Your task to perform on an android device: see creations saved in the google photos Image 0: 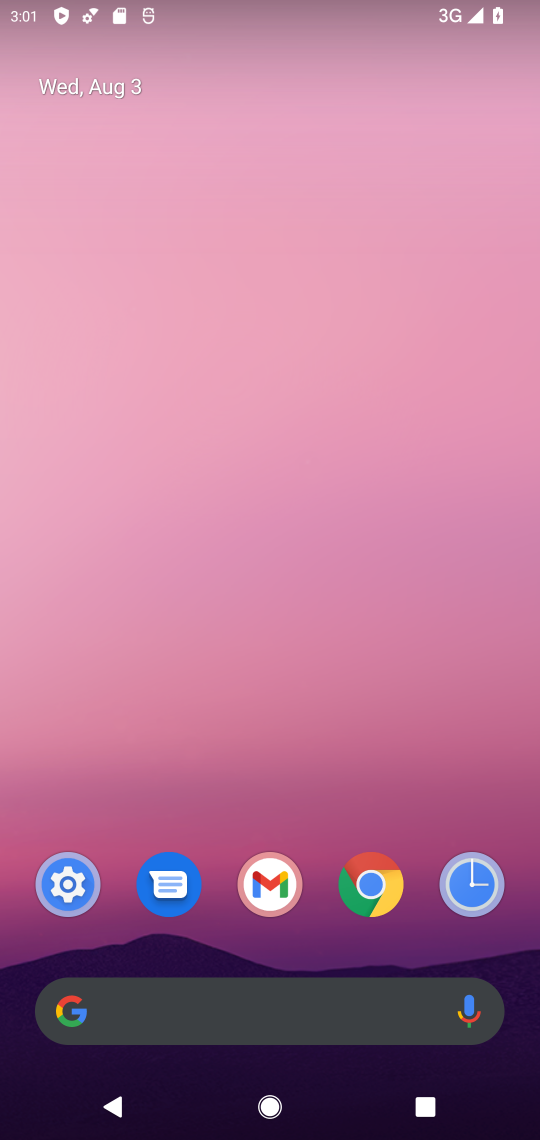
Step 0: drag from (222, 955) to (216, 210)
Your task to perform on an android device: see creations saved in the google photos Image 1: 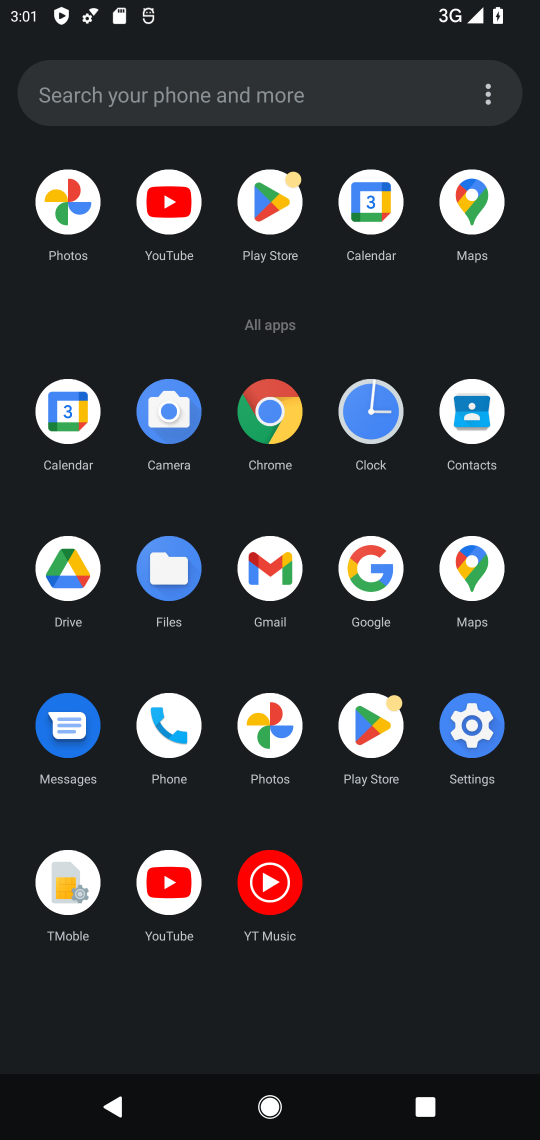
Step 1: click (57, 247)
Your task to perform on an android device: see creations saved in the google photos Image 2: 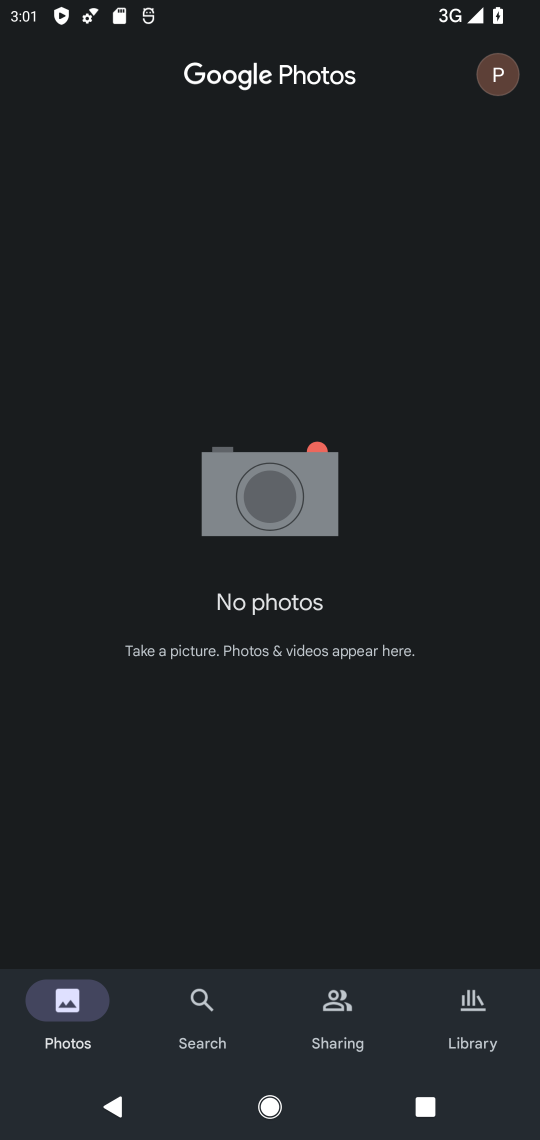
Step 2: task complete